Your task to perform on an android device: turn on the 24-hour format for clock Image 0: 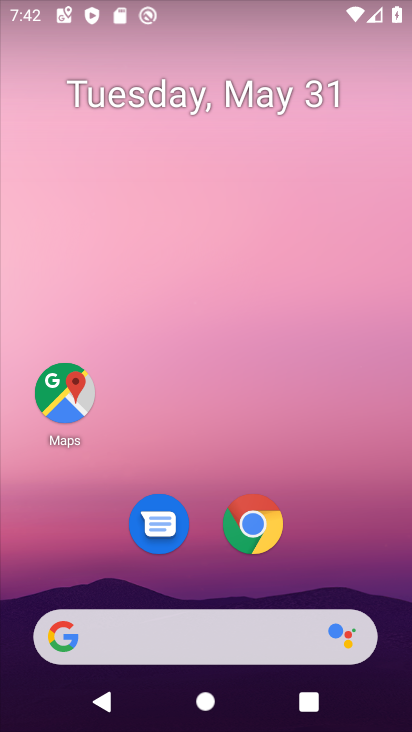
Step 0: drag from (238, 425) to (257, 14)
Your task to perform on an android device: turn on the 24-hour format for clock Image 1: 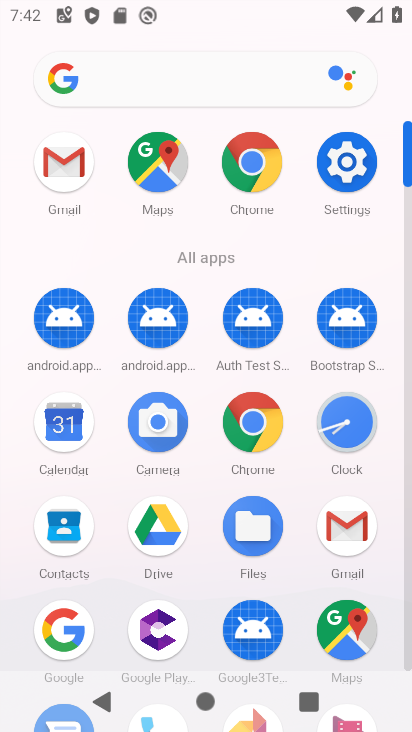
Step 1: click (349, 423)
Your task to perform on an android device: turn on the 24-hour format for clock Image 2: 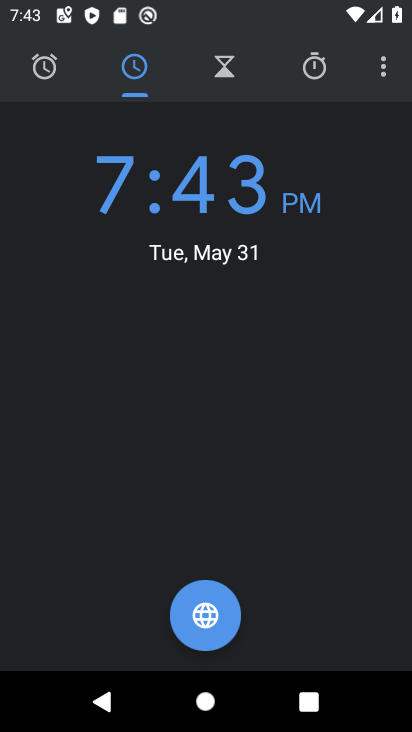
Step 2: click (385, 70)
Your task to perform on an android device: turn on the 24-hour format for clock Image 3: 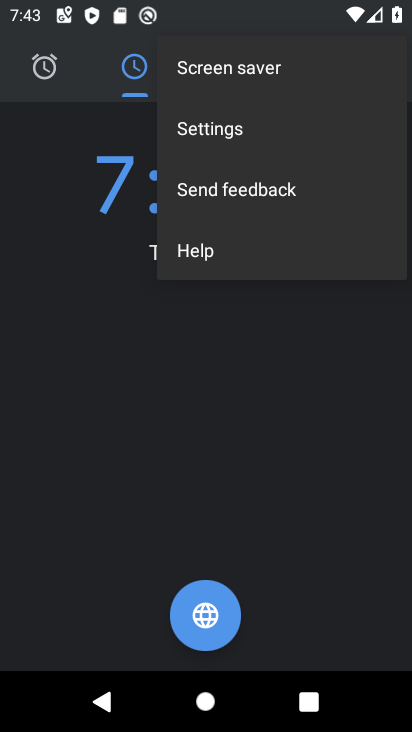
Step 3: click (308, 128)
Your task to perform on an android device: turn on the 24-hour format for clock Image 4: 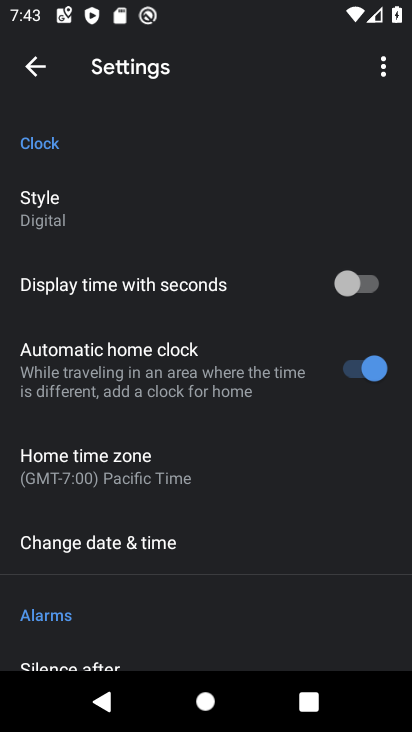
Step 4: click (292, 562)
Your task to perform on an android device: turn on the 24-hour format for clock Image 5: 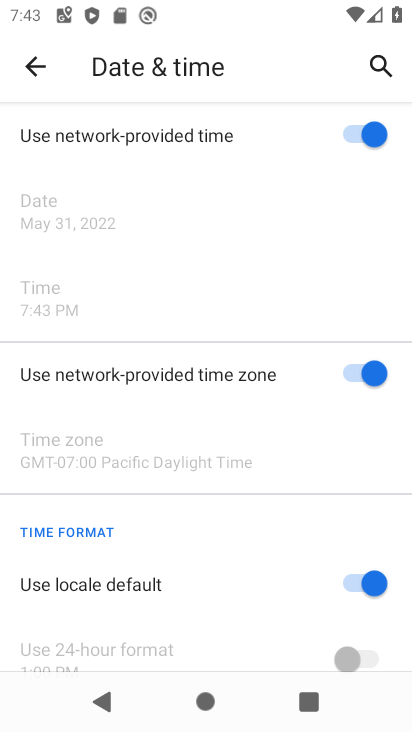
Step 5: click (360, 567)
Your task to perform on an android device: turn on the 24-hour format for clock Image 6: 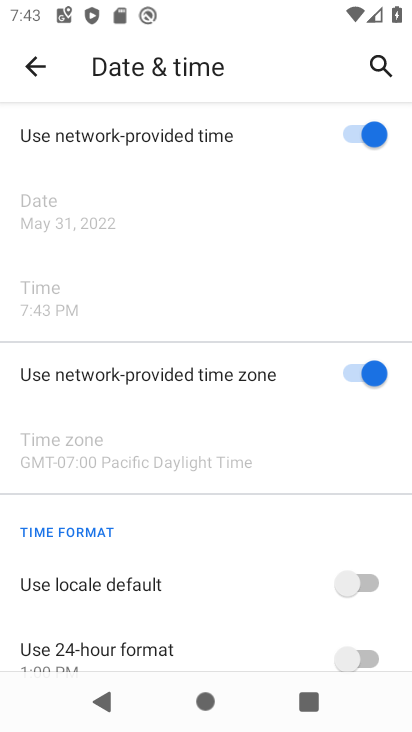
Step 6: click (355, 650)
Your task to perform on an android device: turn on the 24-hour format for clock Image 7: 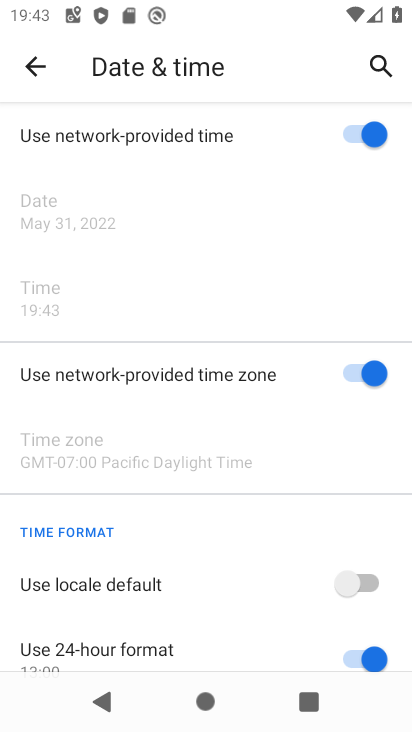
Step 7: task complete